Your task to perform on an android device: Open Android settings Image 0: 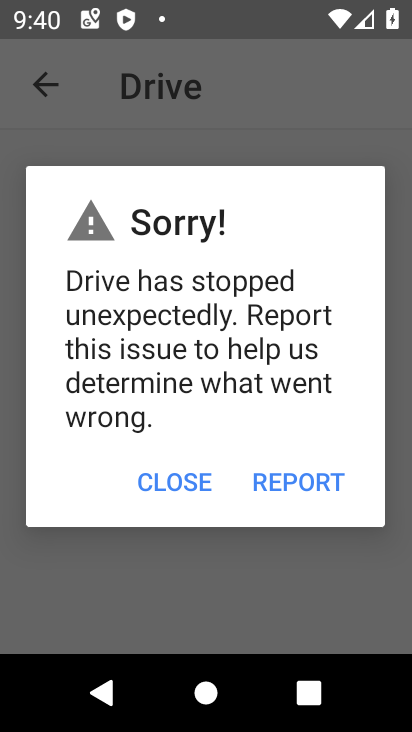
Step 0: press home button
Your task to perform on an android device: Open Android settings Image 1: 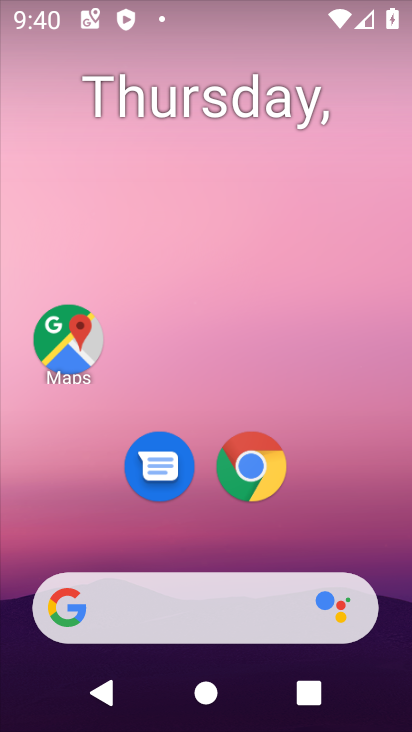
Step 1: drag from (370, 501) to (374, 115)
Your task to perform on an android device: Open Android settings Image 2: 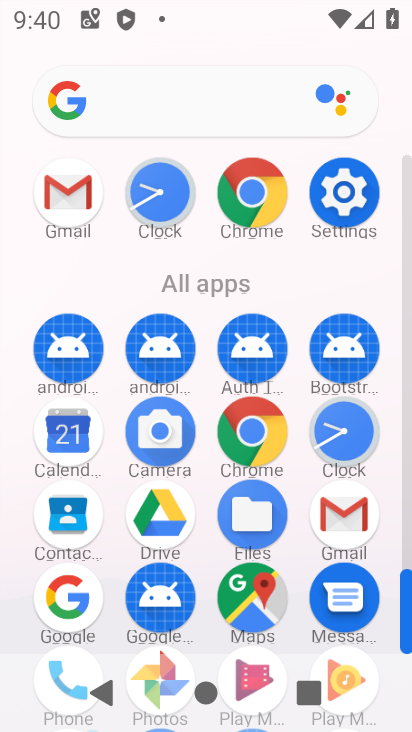
Step 2: click (349, 188)
Your task to perform on an android device: Open Android settings Image 3: 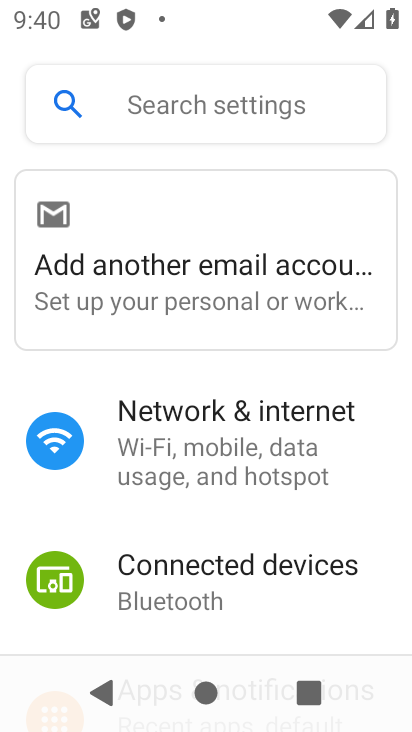
Step 3: drag from (346, 482) to (359, 216)
Your task to perform on an android device: Open Android settings Image 4: 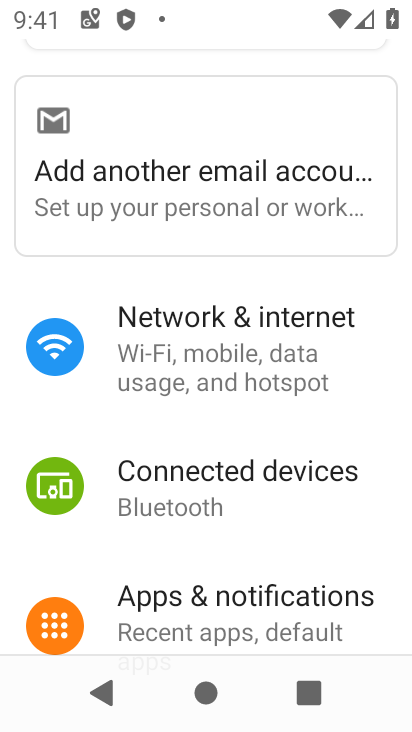
Step 4: drag from (351, 538) to (349, 300)
Your task to perform on an android device: Open Android settings Image 5: 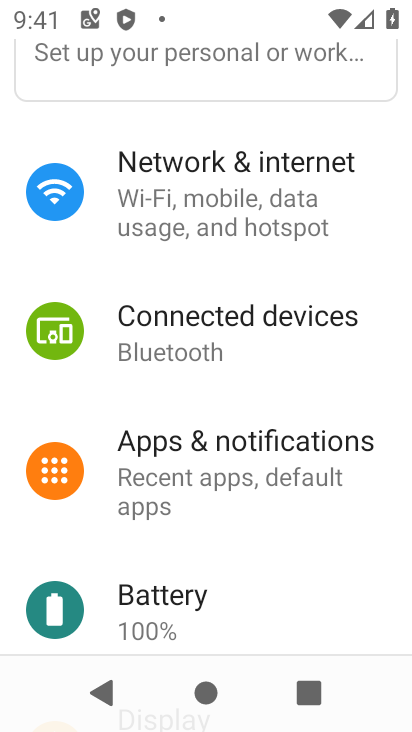
Step 5: drag from (318, 585) to (349, 245)
Your task to perform on an android device: Open Android settings Image 6: 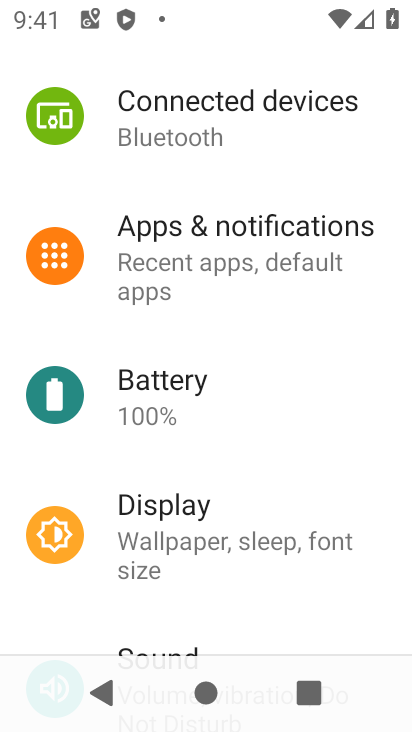
Step 6: drag from (302, 603) to (337, 289)
Your task to perform on an android device: Open Android settings Image 7: 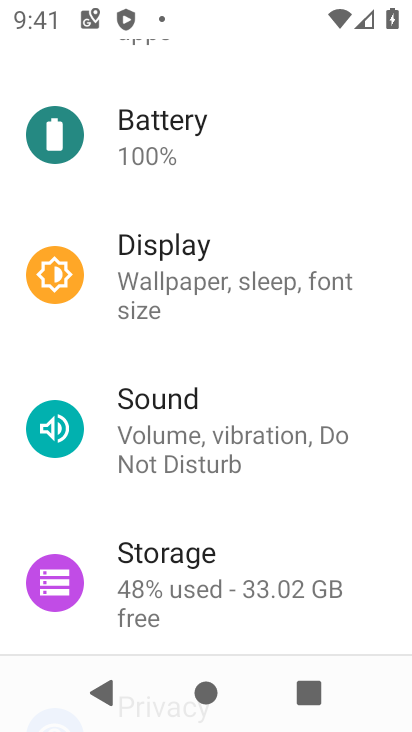
Step 7: drag from (273, 514) to (353, 209)
Your task to perform on an android device: Open Android settings Image 8: 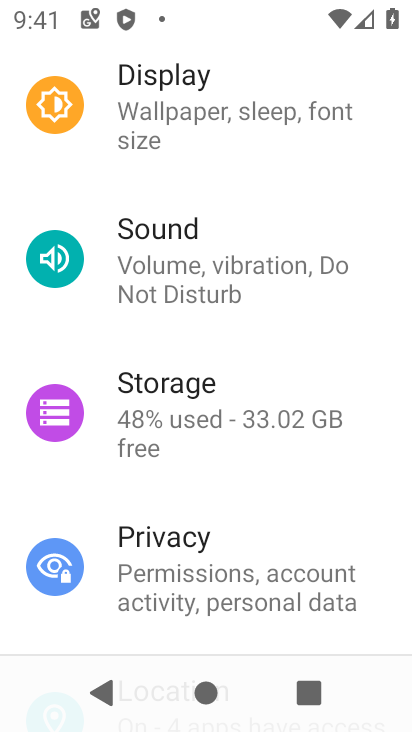
Step 8: drag from (293, 587) to (357, 196)
Your task to perform on an android device: Open Android settings Image 9: 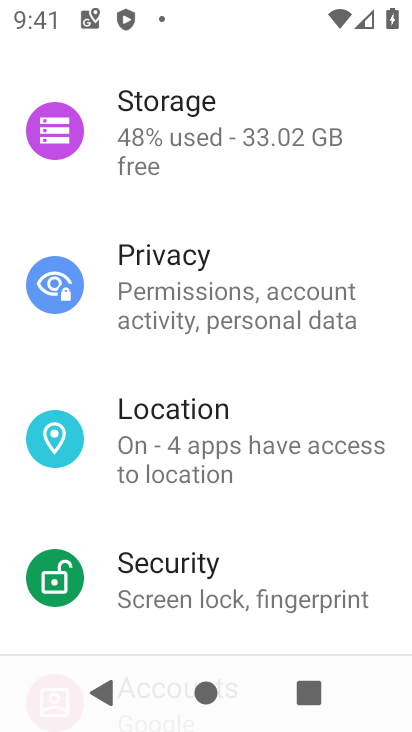
Step 9: drag from (313, 566) to (314, 195)
Your task to perform on an android device: Open Android settings Image 10: 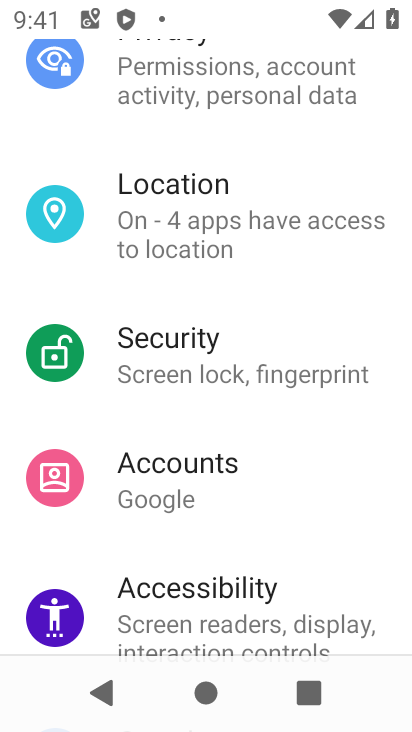
Step 10: drag from (294, 556) to (335, 260)
Your task to perform on an android device: Open Android settings Image 11: 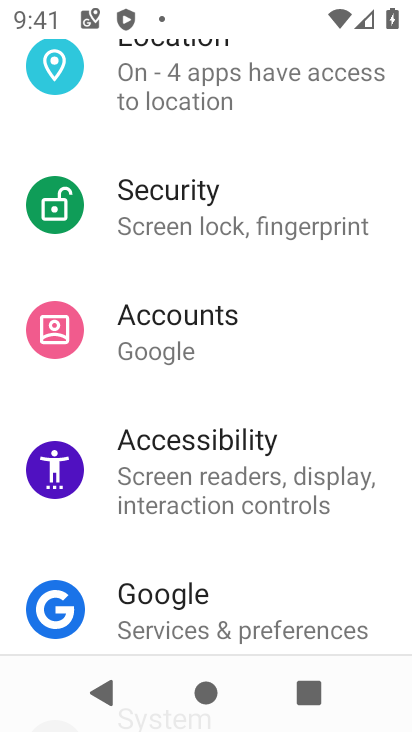
Step 11: drag from (302, 581) to (348, 270)
Your task to perform on an android device: Open Android settings Image 12: 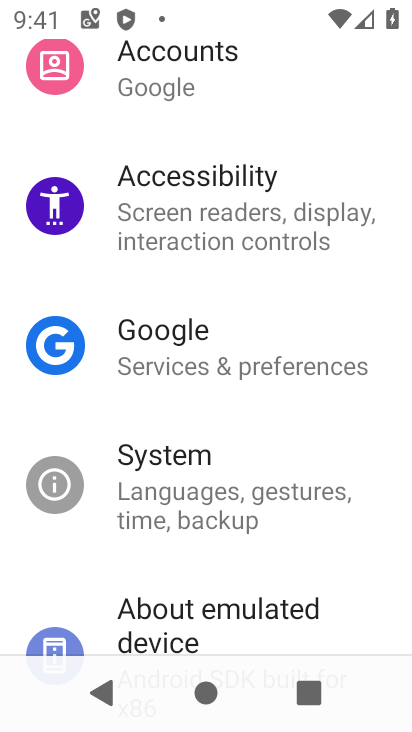
Step 12: drag from (315, 505) to (348, 239)
Your task to perform on an android device: Open Android settings Image 13: 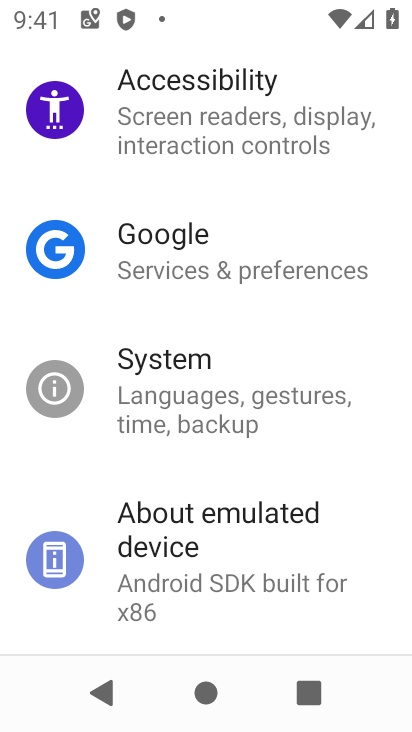
Step 13: drag from (298, 559) to (338, 268)
Your task to perform on an android device: Open Android settings Image 14: 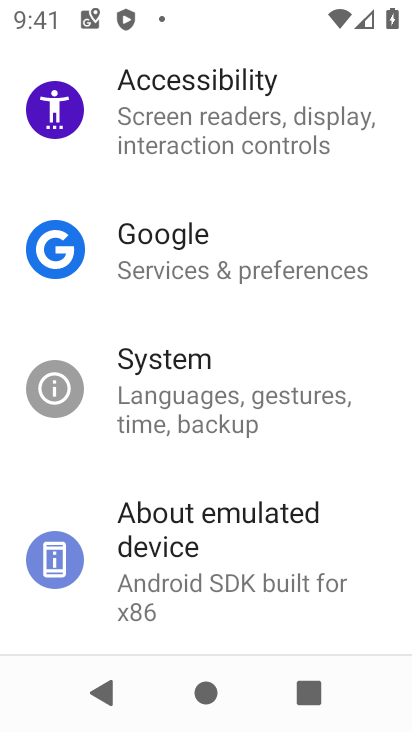
Step 14: click (261, 584)
Your task to perform on an android device: Open Android settings Image 15: 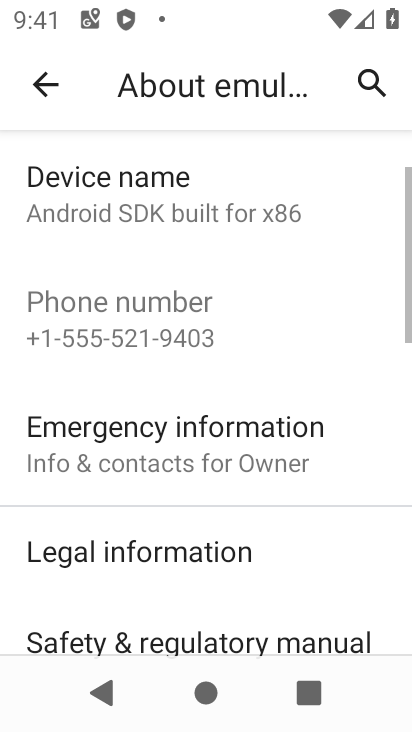
Step 15: task complete